Your task to perform on an android device: What's the news in Taiwan? Image 0: 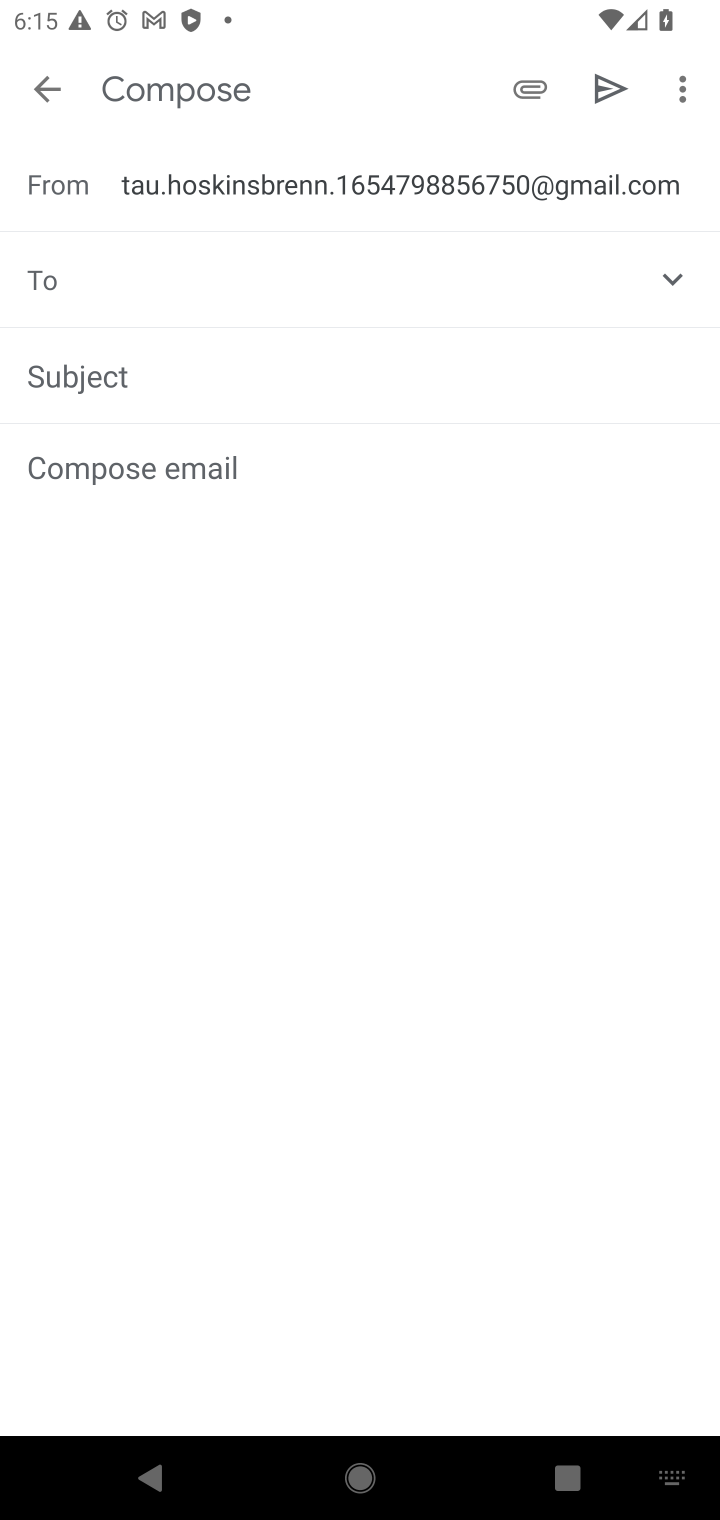
Step 0: press home button
Your task to perform on an android device: What's the news in Taiwan? Image 1: 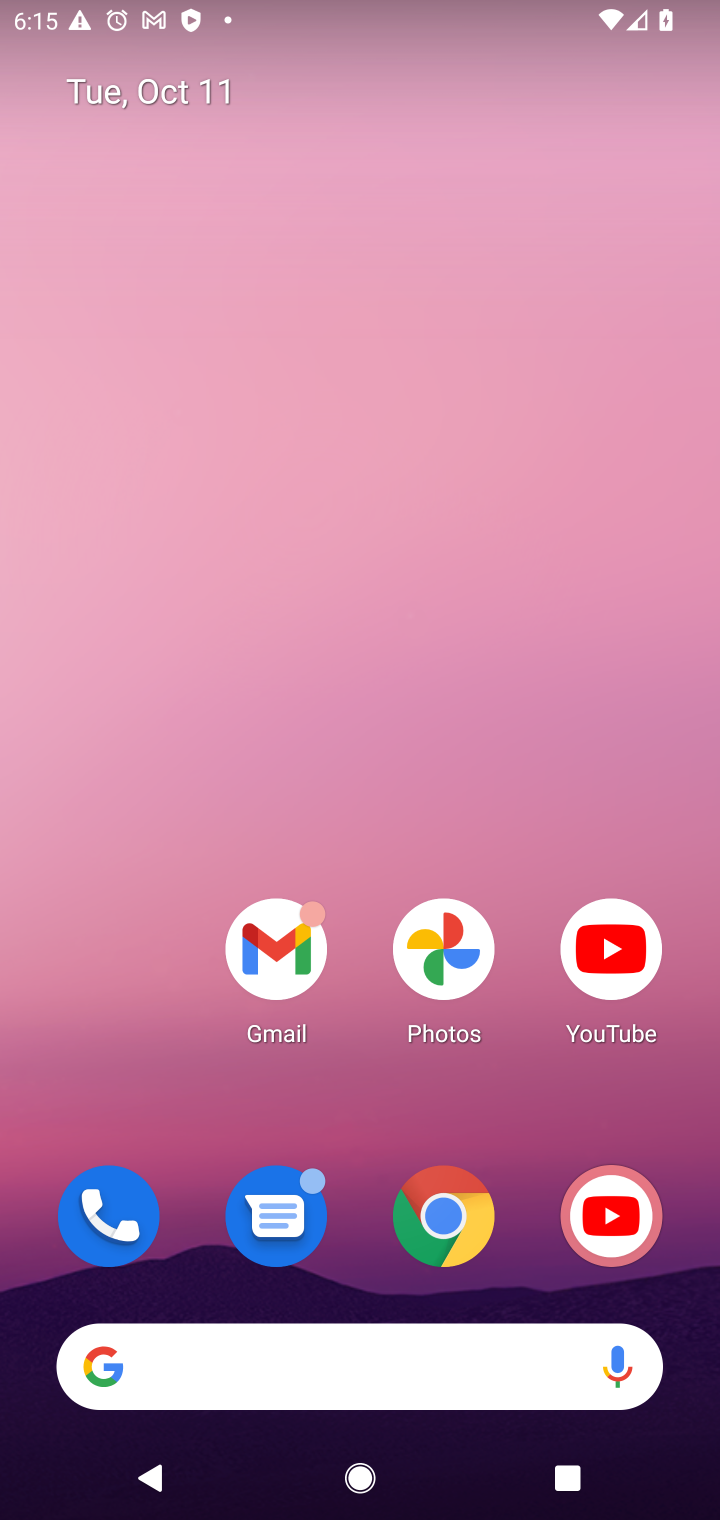
Step 1: click (461, 1199)
Your task to perform on an android device: What's the news in Taiwan? Image 2: 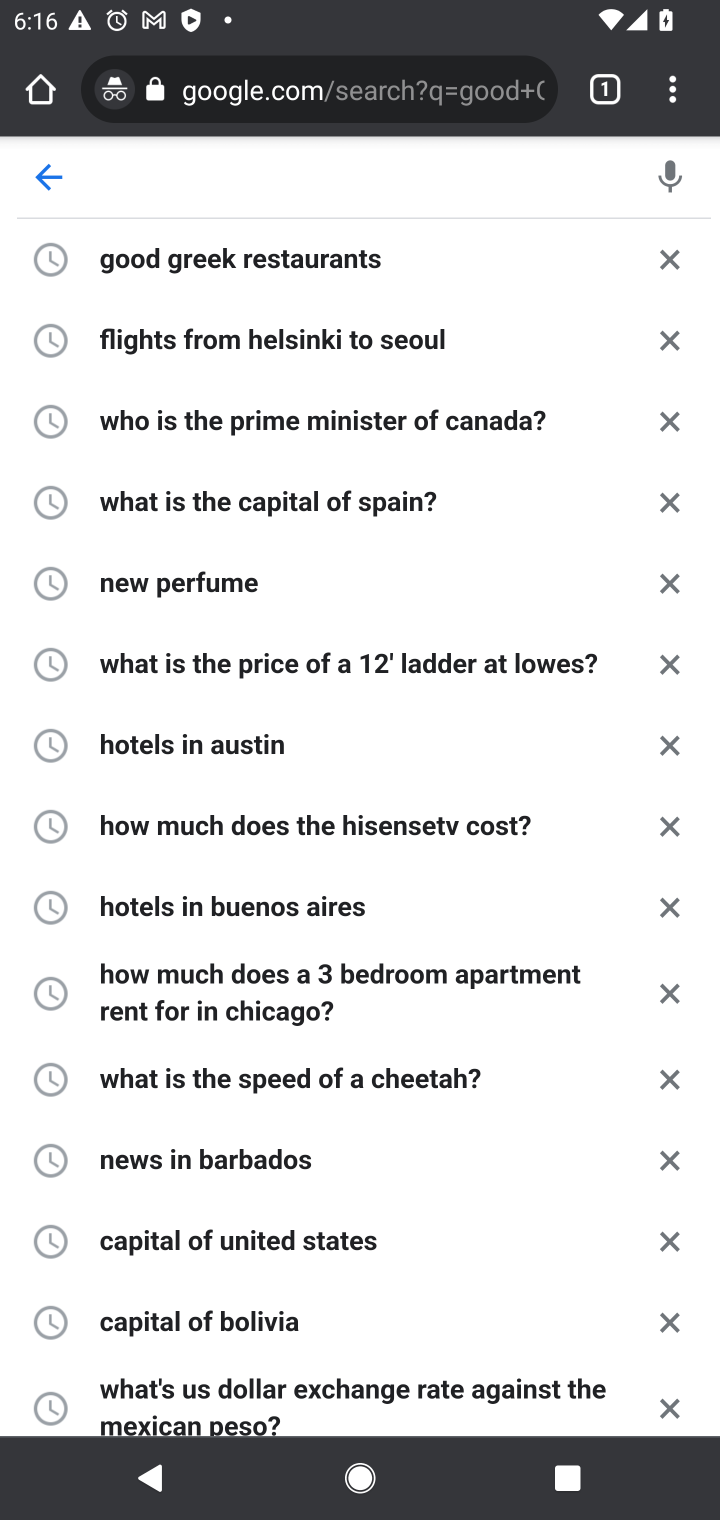
Step 2: type "news in taiwan"
Your task to perform on an android device: What's the news in Taiwan? Image 3: 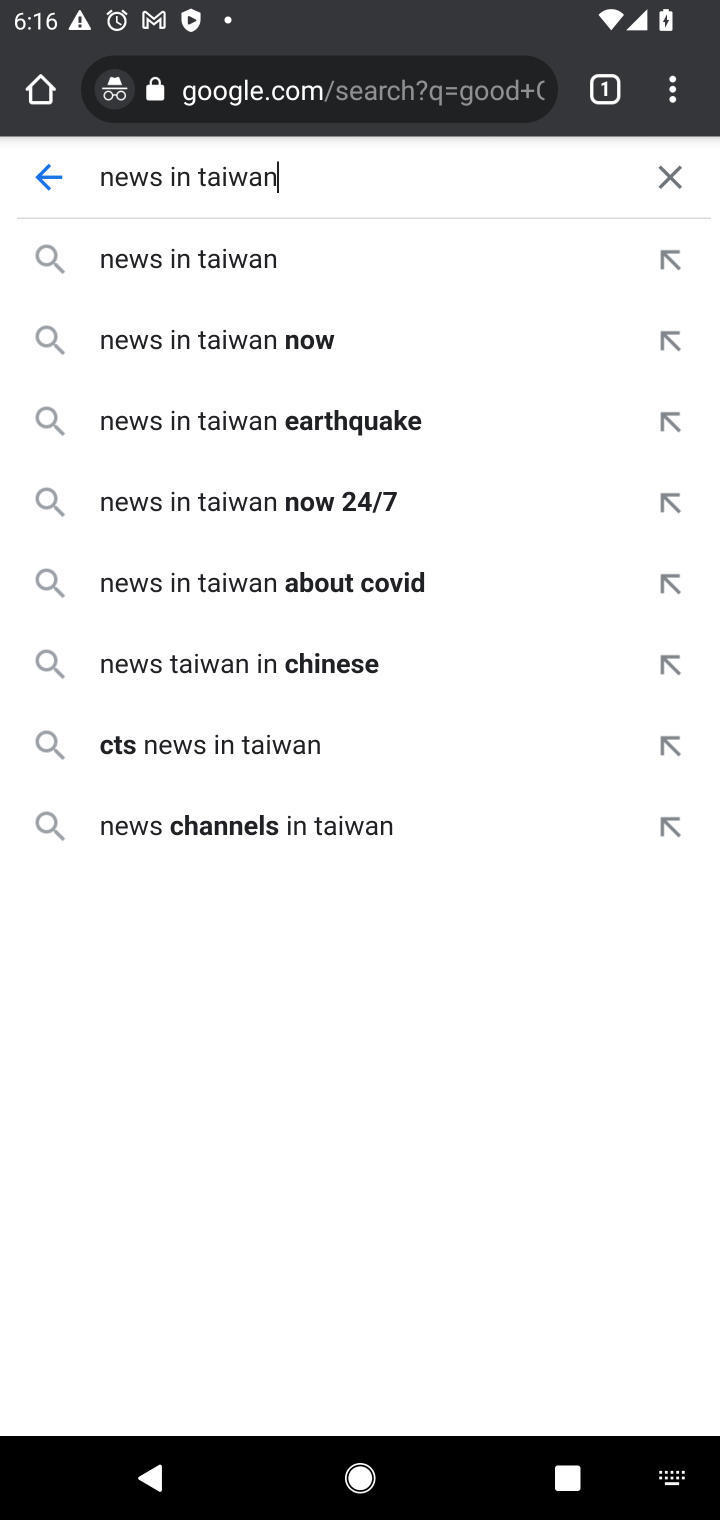
Step 3: press enter
Your task to perform on an android device: What's the news in Taiwan? Image 4: 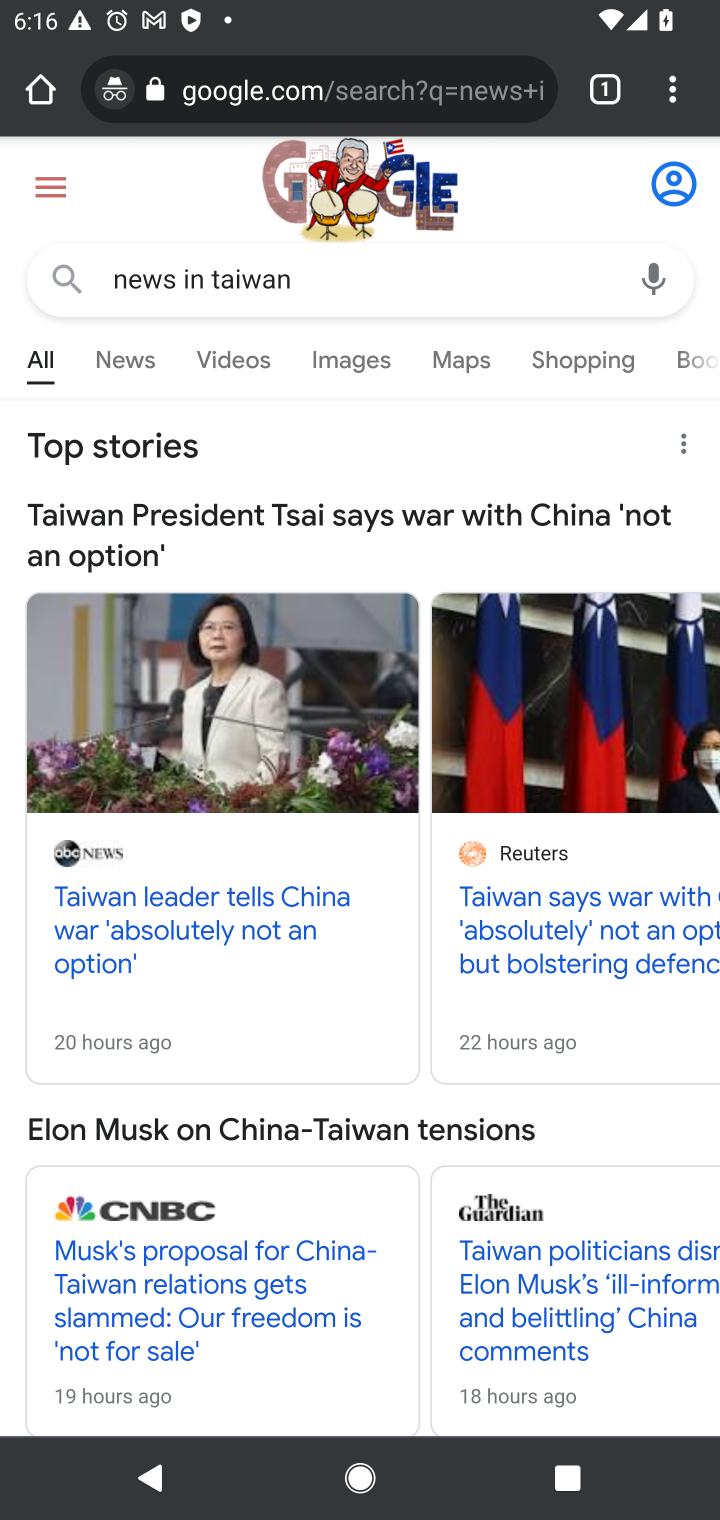
Step 4: click (111, 360)
Your task to perform on an android device: What's the news in Taiwan? Image 5: 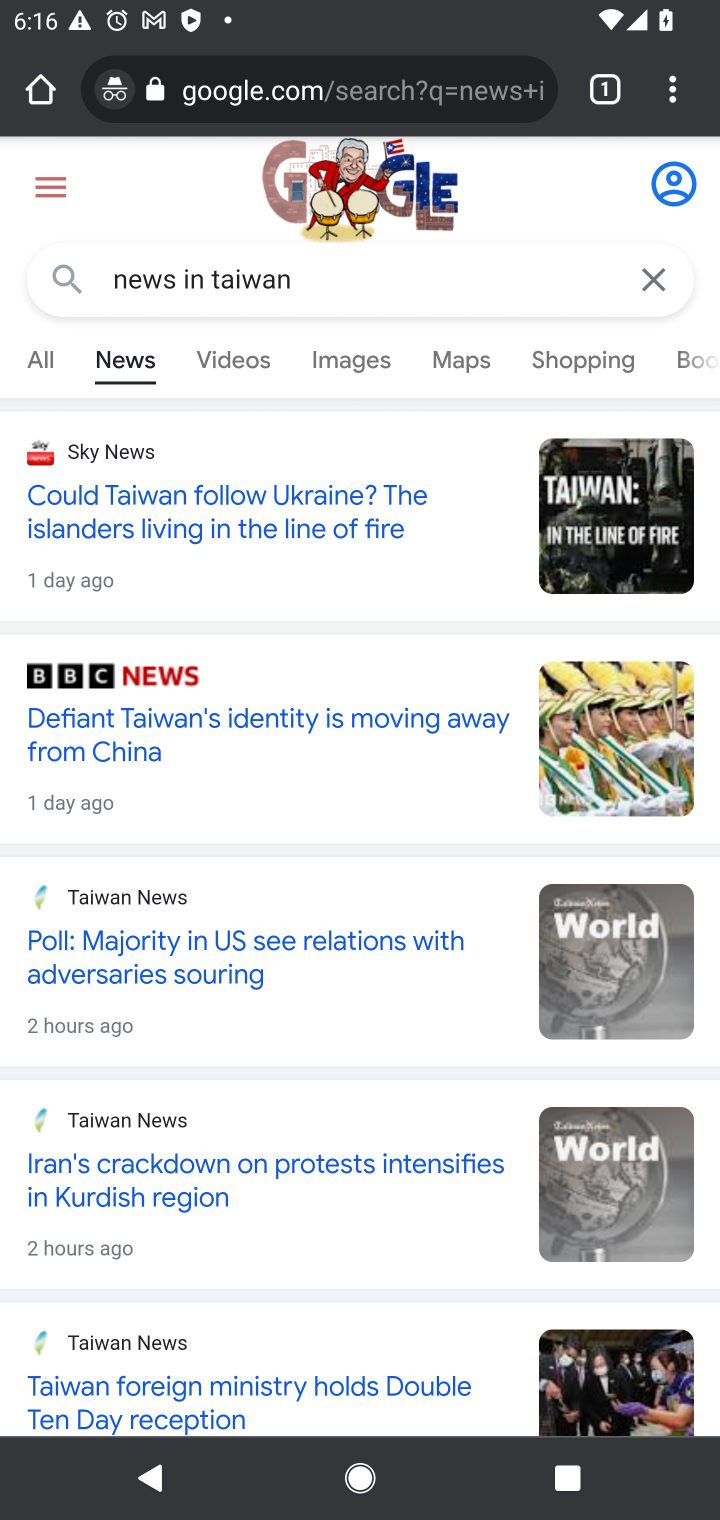
Step 5: task complete